Your task to perform on an android device: Open Google Maps Image 0: 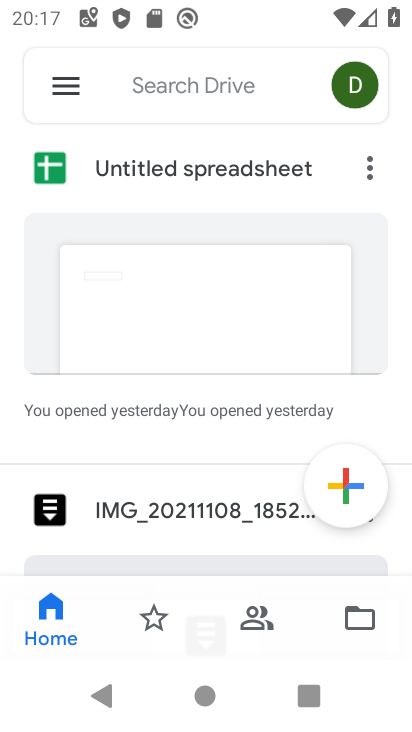
Step 0: press home button
Your task to perform on an android device: Open Google Maps Image 1: 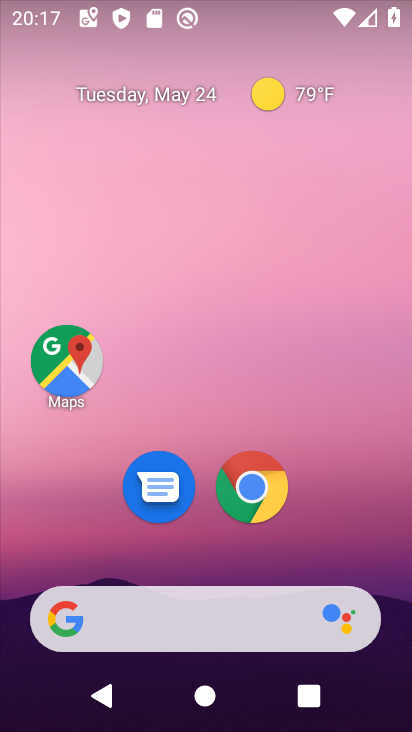
Step 1: click (71, 360)
Your task to perform on an android device: Open Google Maps Image 2: 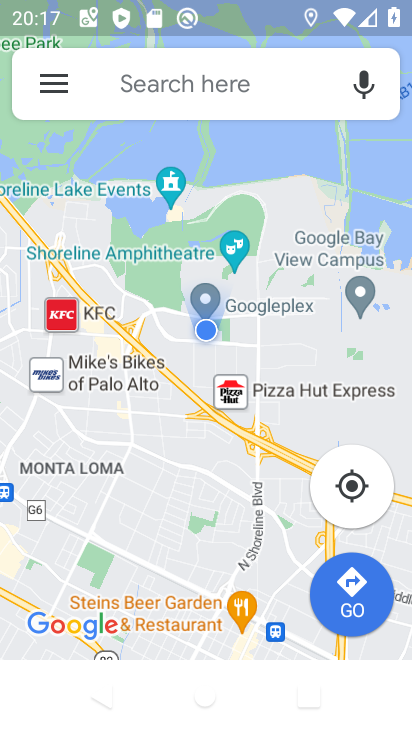
Step 2: task complete